Your task to perform on an android device: Open the phone app and click the voicemail tab. Image 0: 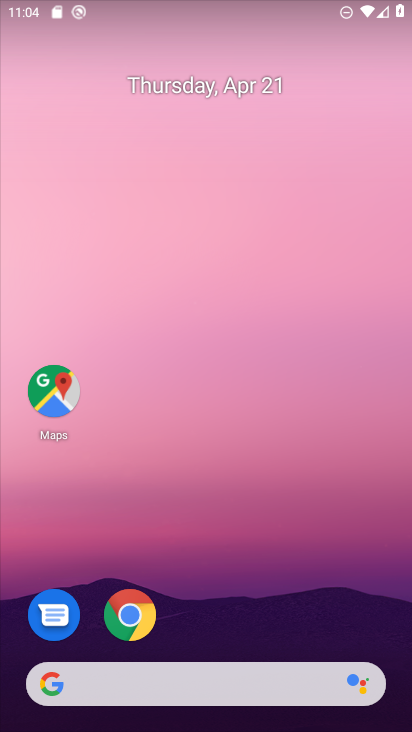
Step 0: click (243, 82)
Your task to perform on an android device: Open the phone app and click the voicemail tab. Image 1: 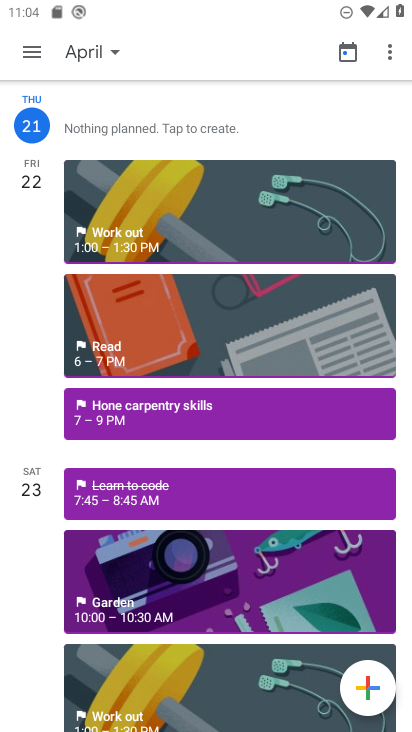
Step 1: press home button
Your task to perform on an android device: Open the phone app and click the voicemail tab. Image 2: 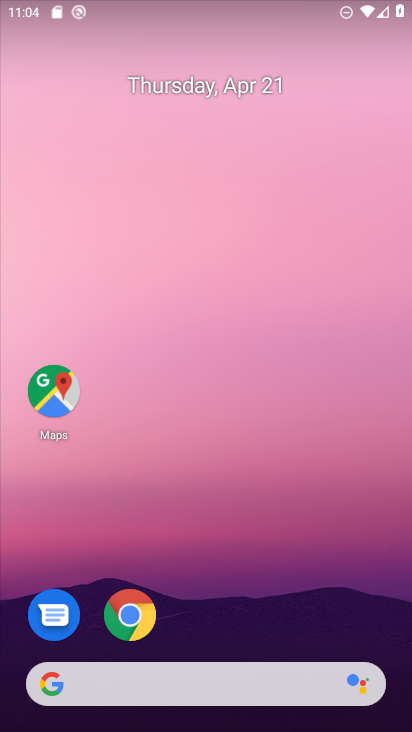
Step 2: drag from (229, 642) to (233, 0)
Your task to perform on an android device: Open the phone app and click the voicemail tab. Image 3: 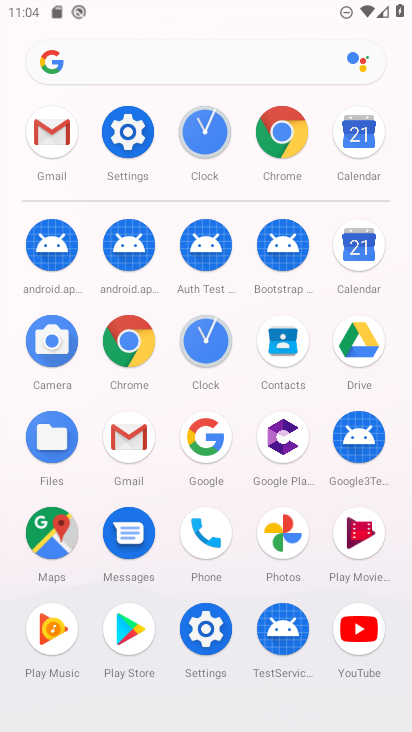
Step 3: click (207, 519)
Your task to perform on an android device: Open the phone app and click the voicemail tab. Image 4: 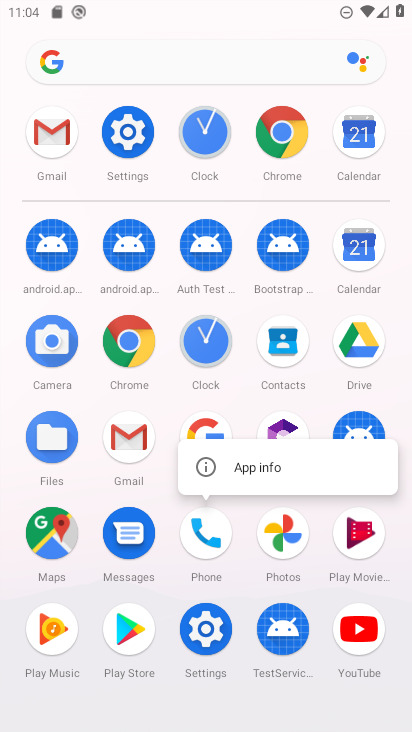
Step 4: click (202, 523)
Your task to perform on an android device: Open the phone app and click the voicemail tab. Image 5: 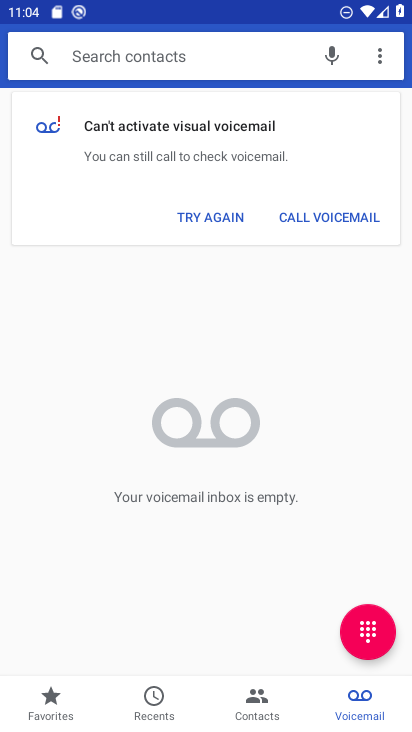
Step 5: click (354, 694)
Your task to perform on an android device: Open the phone app and click the voicemail tab. Image 6: 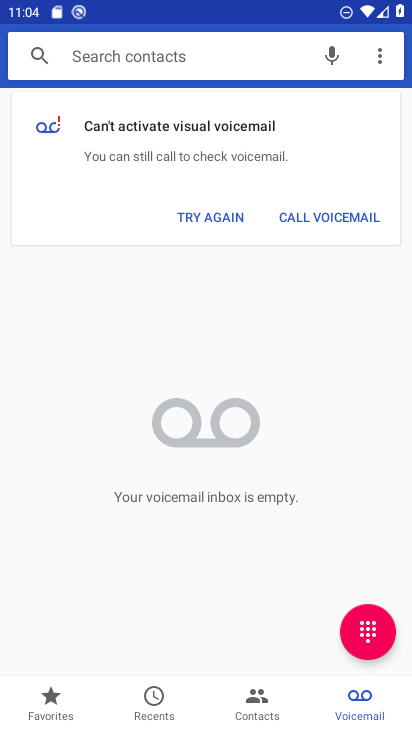
Step 6: task complete